Your task to perform on an android device: open app "PlayWell" (install if not already installed) Image 0: 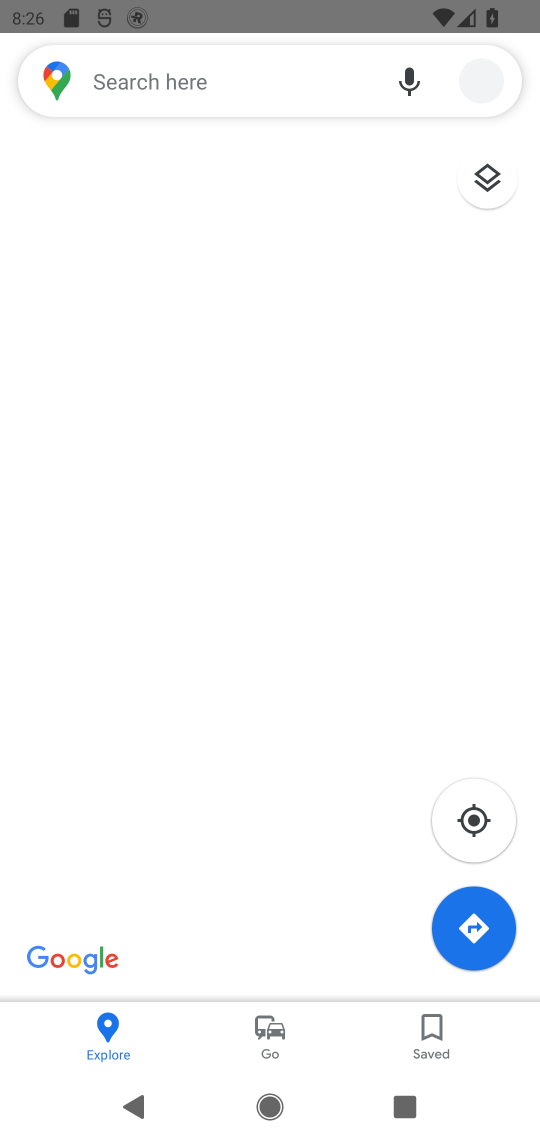
Step 0: press home button
Your task to perform on an android device: open app "PlayWell" (install if not already installed) Image 1: 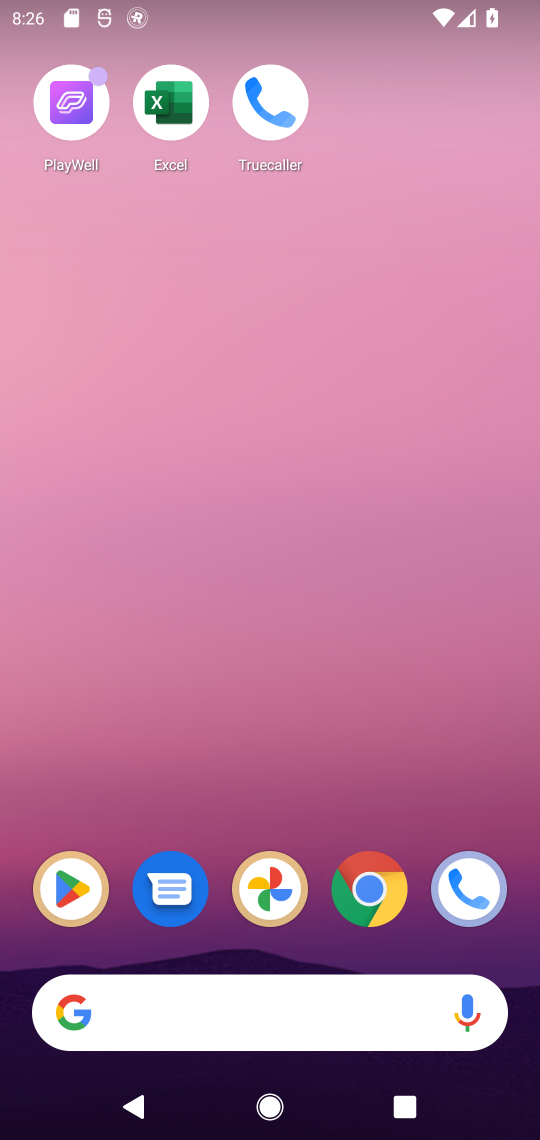
Step 1: click (66, 883)
Your task to perform on an android device: open app "PlayWell" (install if not already installed) Image 2: 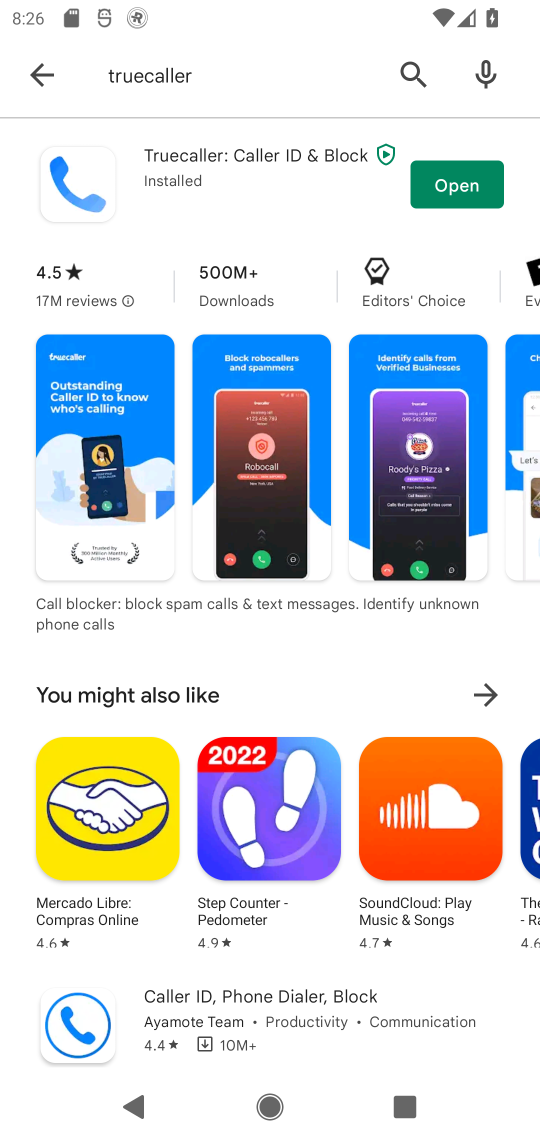
Step 2: click (407, 70)
Your task to perform on an android device: open app "PlayWell" (install if not already installed) Image 3: 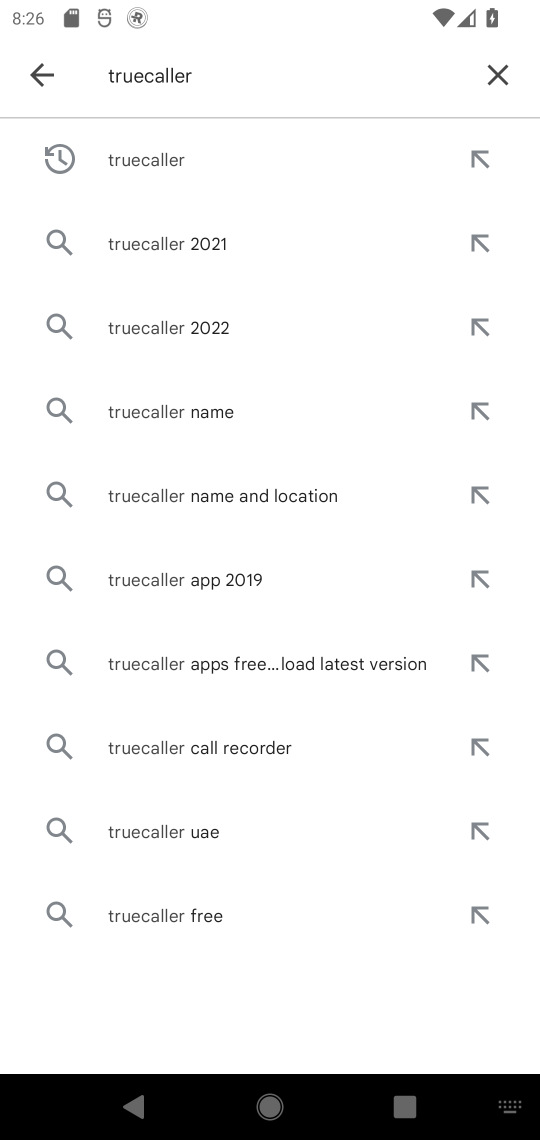
Step 3: click (490, 65)
Your task to perform on an android device: open app "PlayWell" (install if not already installed) Image 4: 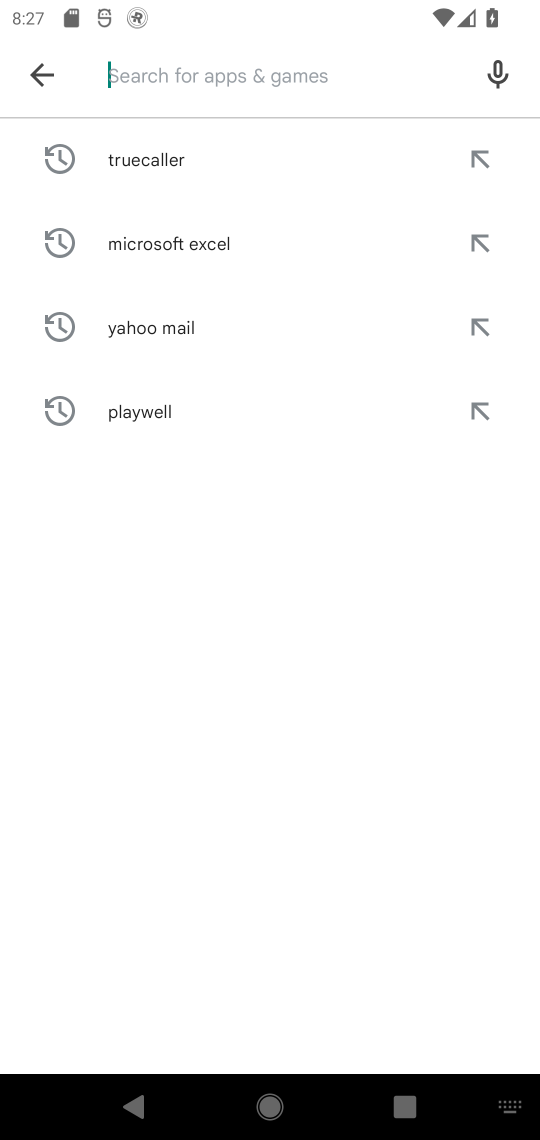
Step 4: type "PlayWell"
Your task to perform on an android device: open app "PlayWell" (install if not already installed) Image 5: 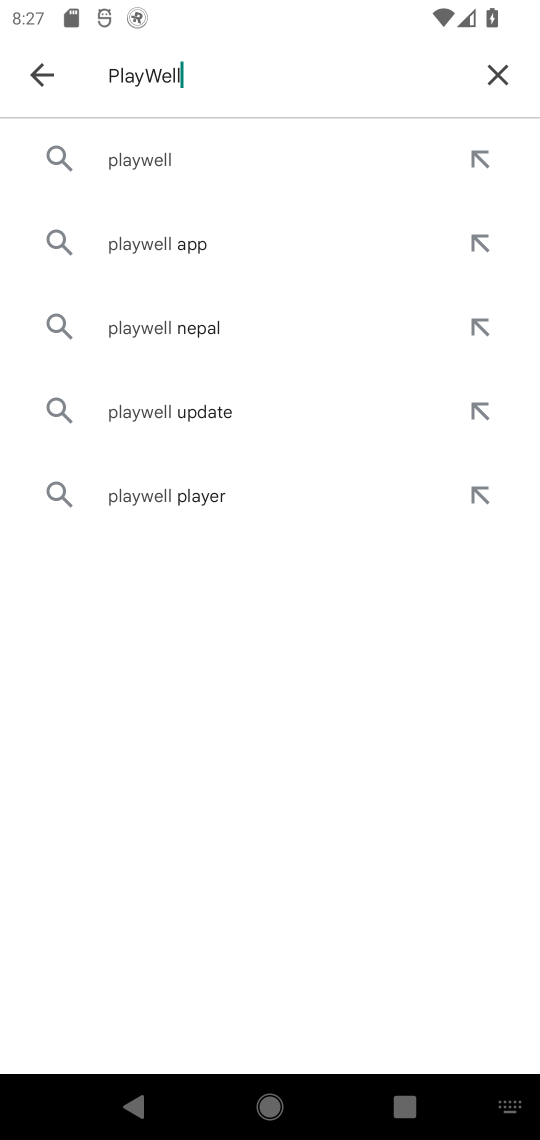
Step 5: click (159, 155)
Your task to perform on an android device: open app "PlayWell" (install if not already installed) Image 6: 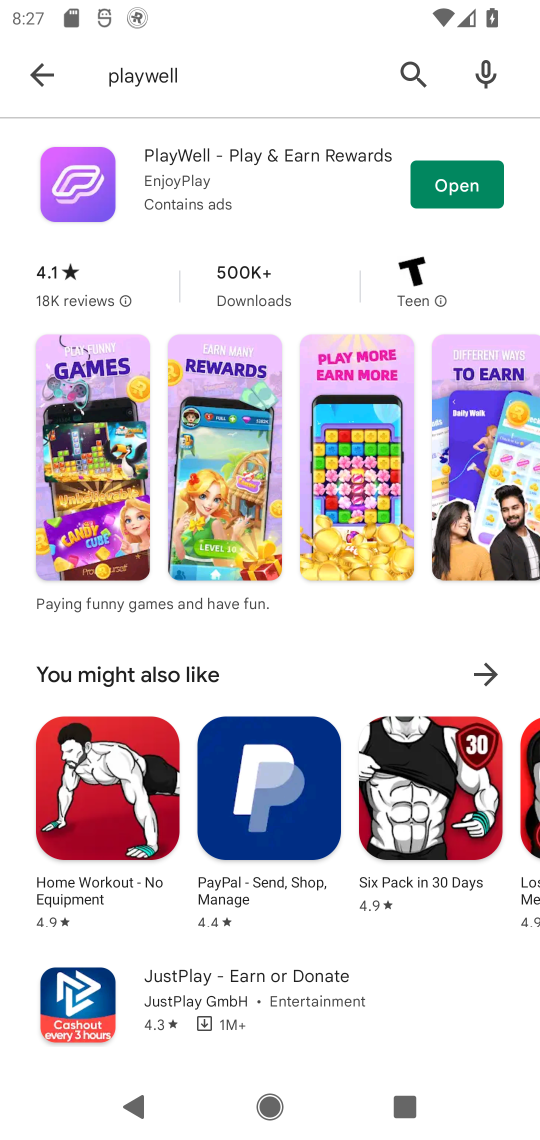
Step 6: click (471, 184)
Your task to perform on an android device: open app "PlayWell" (install if not already installed) Image 7: 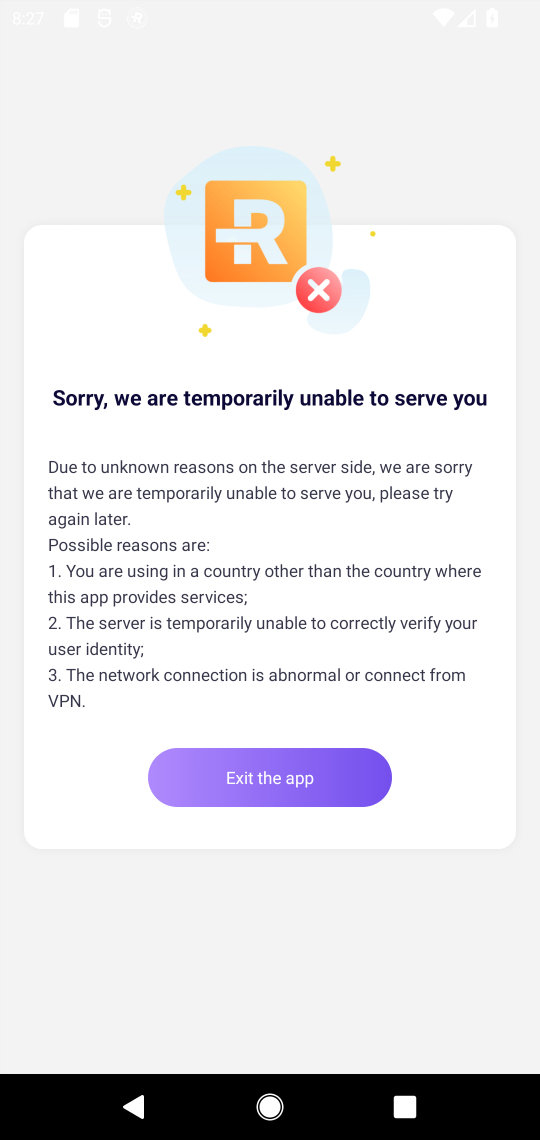
Step 7: task complete